Your task to perform on an android device: turn smart compose on in the gmail app Image 0: 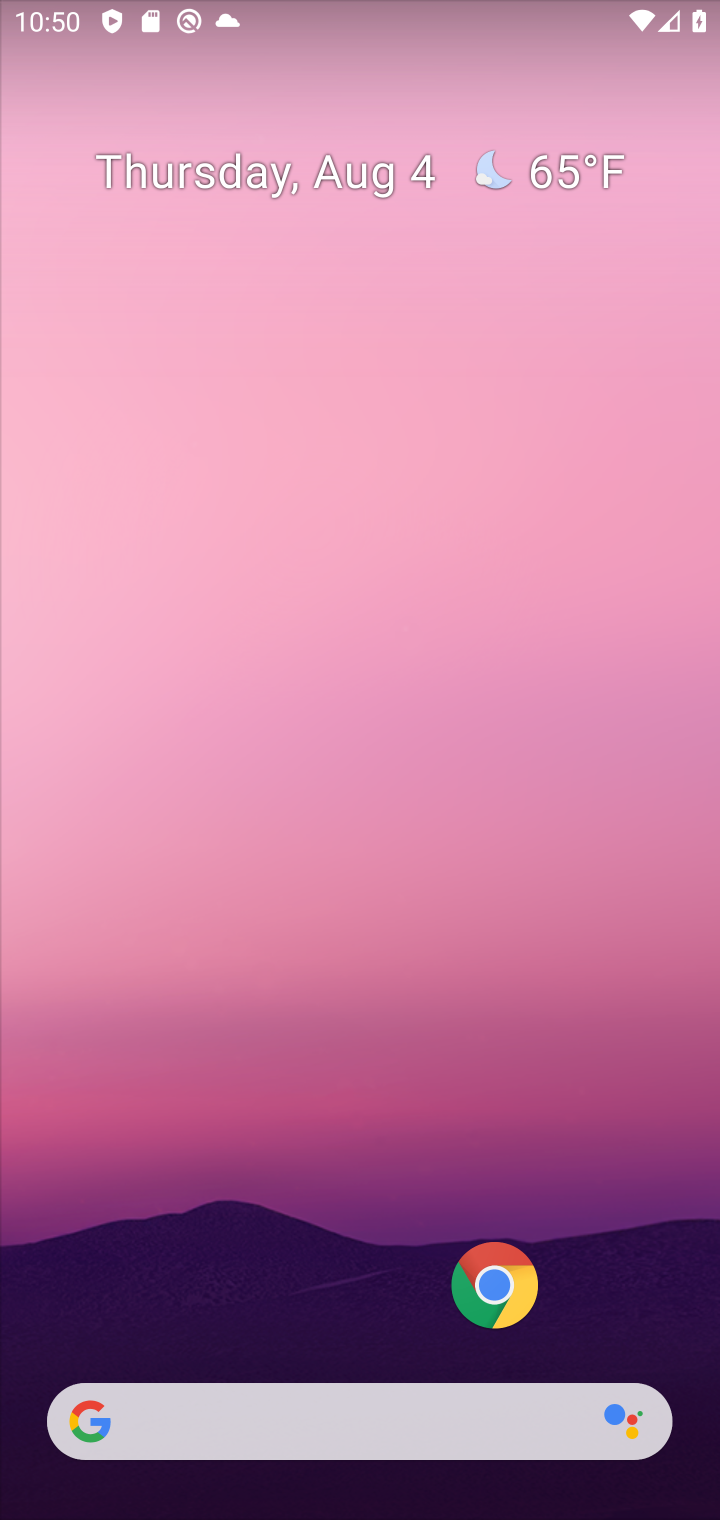
Step 0: drag from (381, 1259) to (540, 104)
Your task to perform on an android device: turn smart compose on in the gmail app Image 1: 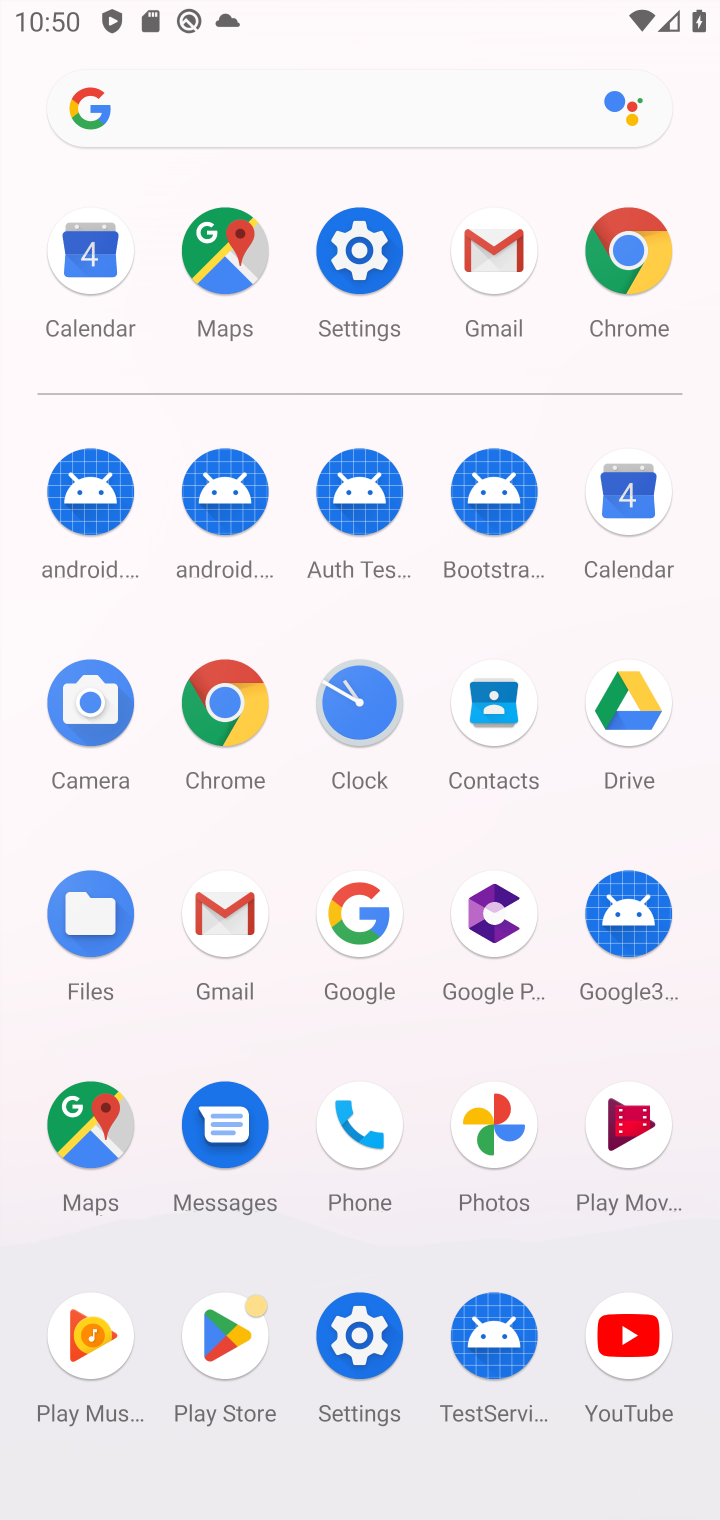
Step 1: click (224, 846)
Your task to perform on an android device: turn smart compose on in the gmail app Image 2: 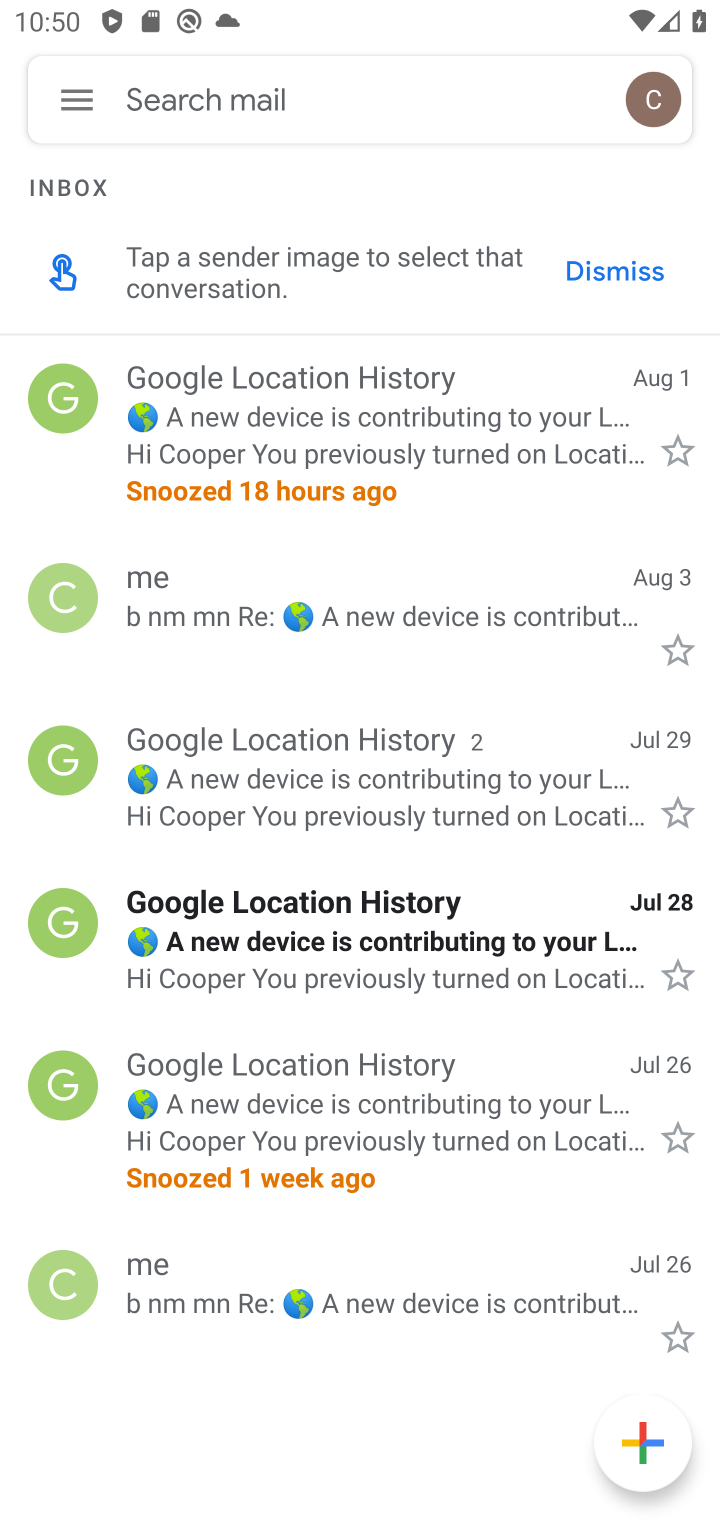
Step 2: click (85, 101)
Your task to perform on an android device: turn smart compose on in the gmail app Image 3: 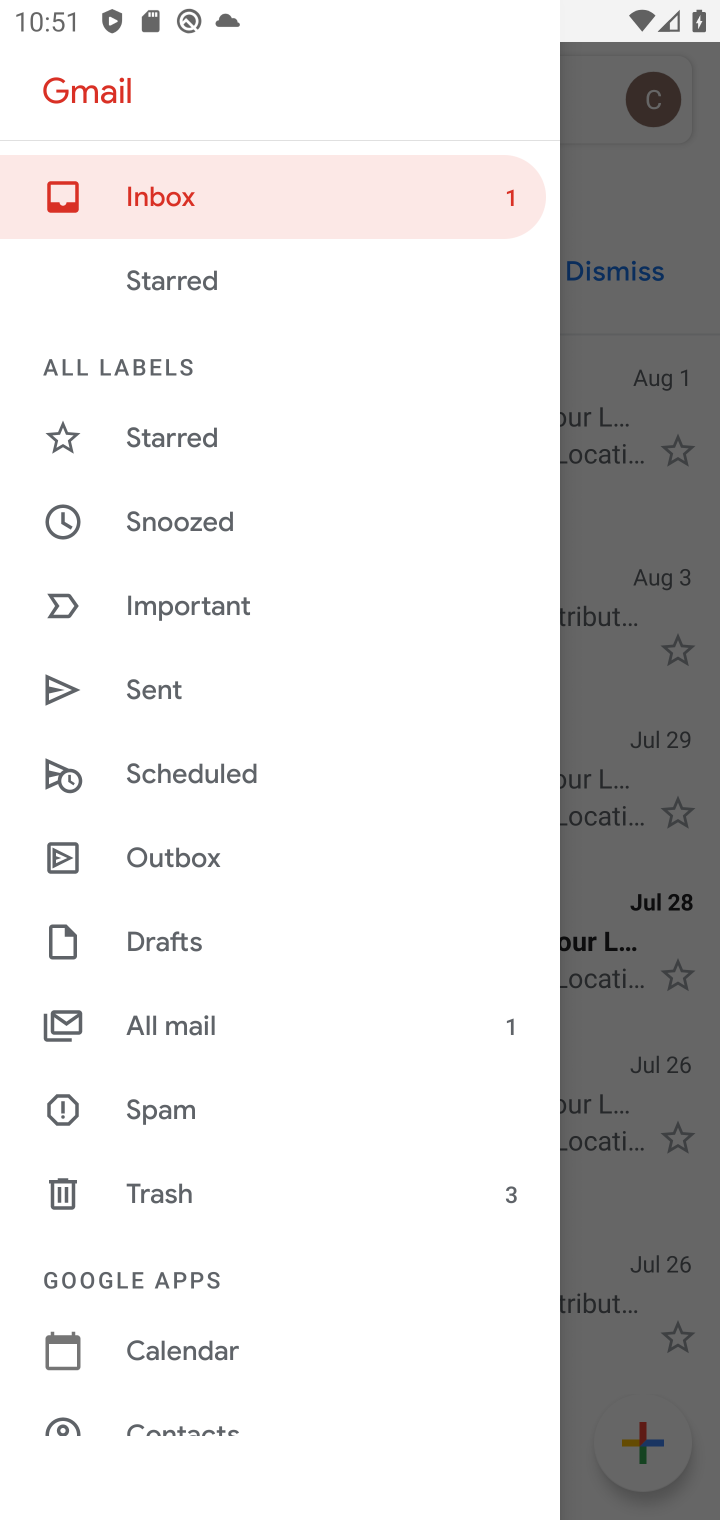
Step 3: drag from (263, 1119) to (304, 125)
Your task to perform on an android device: turn smart compose on in the gmail app Image 4: 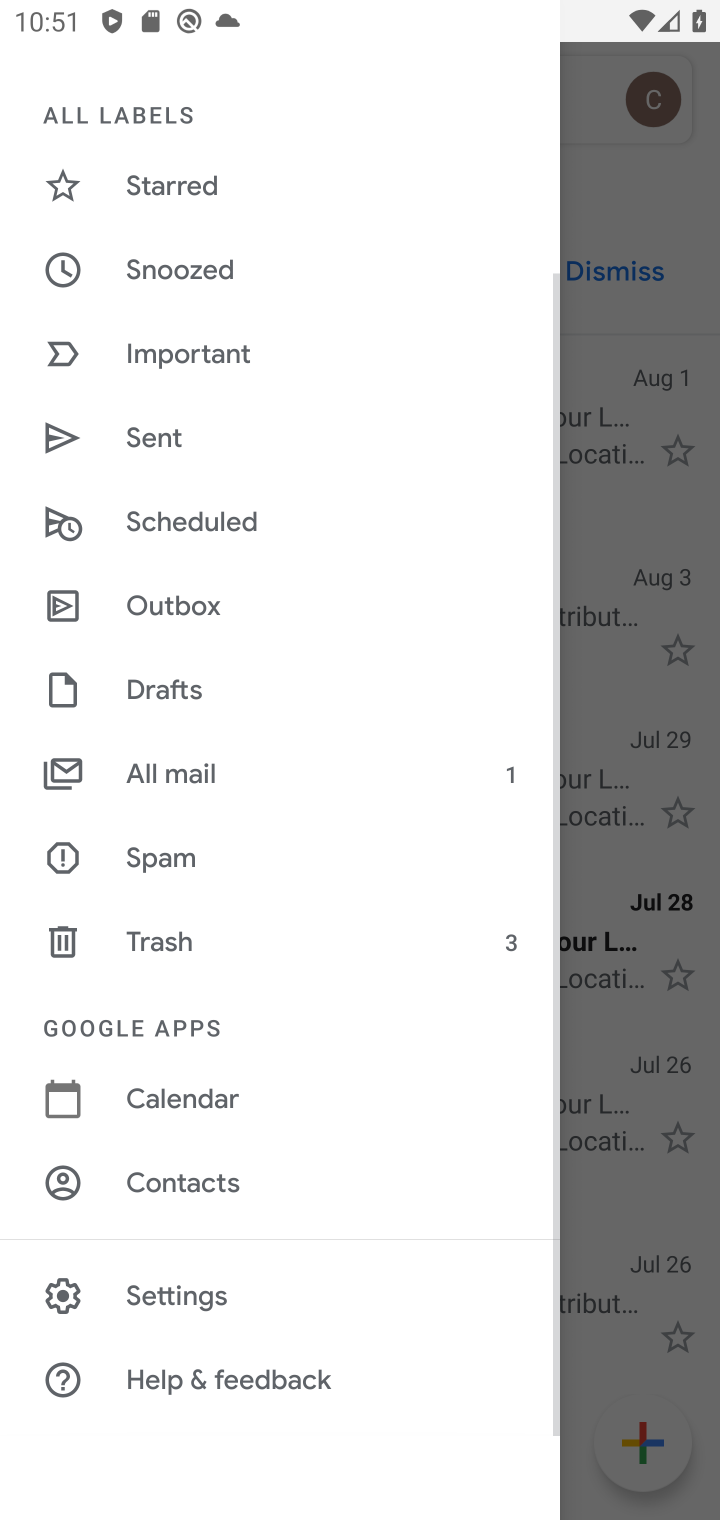
Step 4: click (159, 1289)
Your task to perform on an android device: turn smart compose on in the gmail app Image 5: 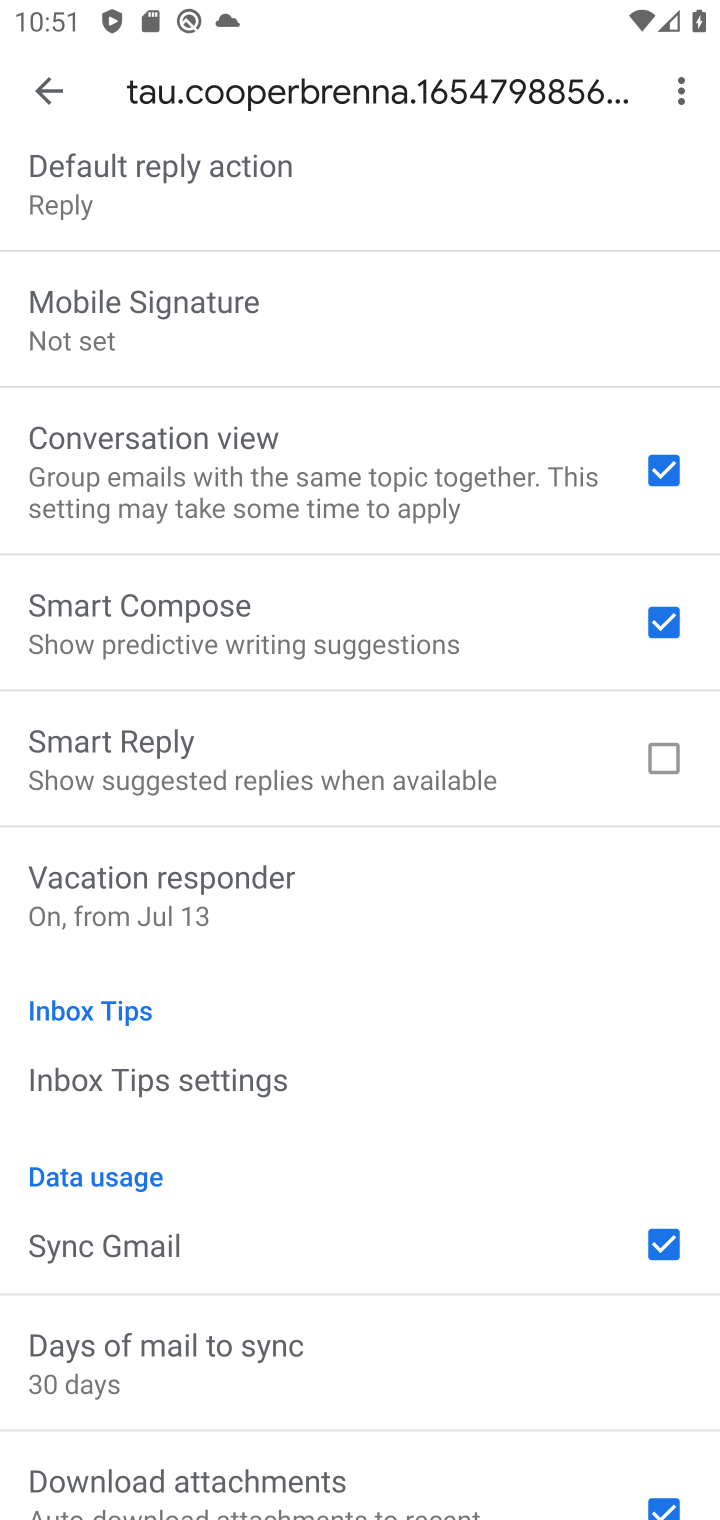
Step 5: drag from (472, 1051) to (407, 259)
Your task to perform on an android device: turn smart compose on in the gmail app Image 6: 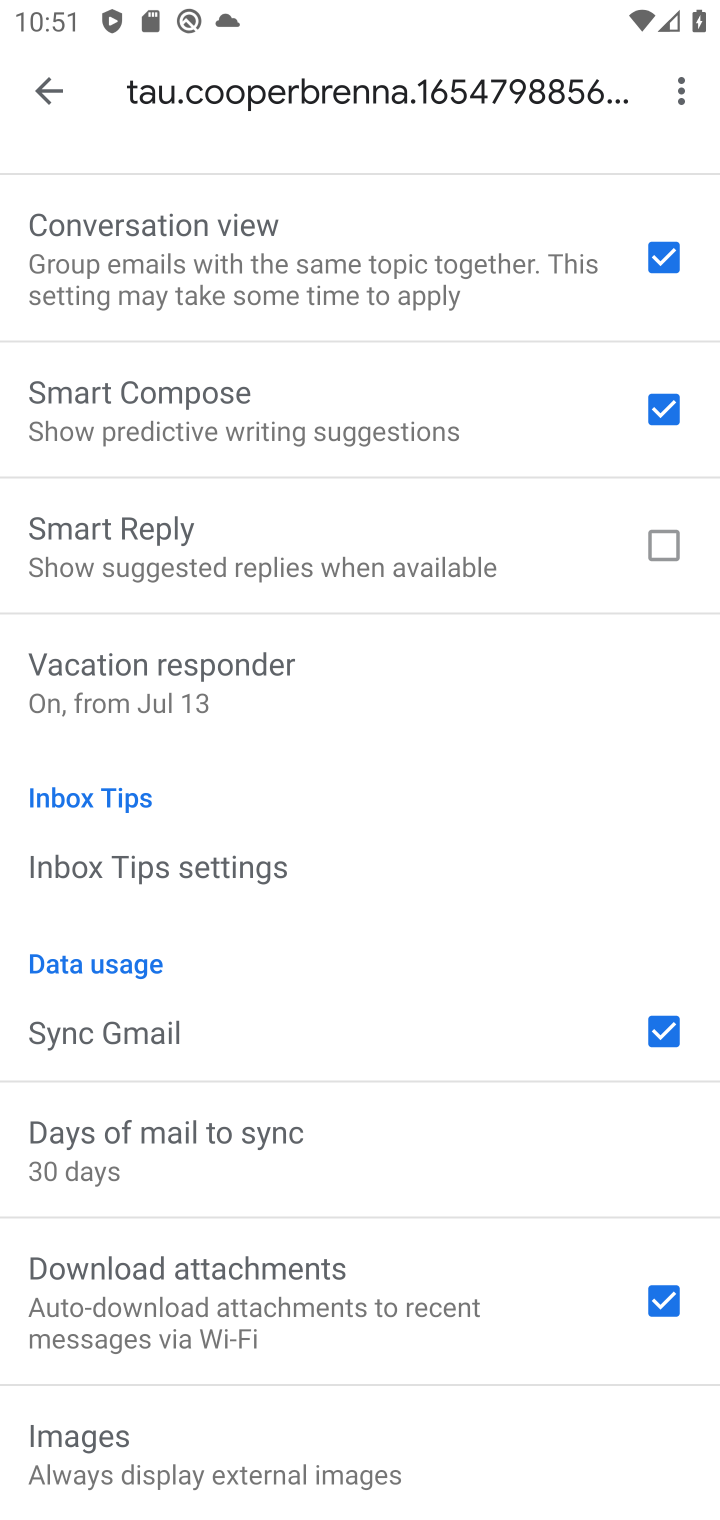
Step 6: click (530, 410)
Your task to perform on an android device: turn smart compose on in the gmail app Image 7: 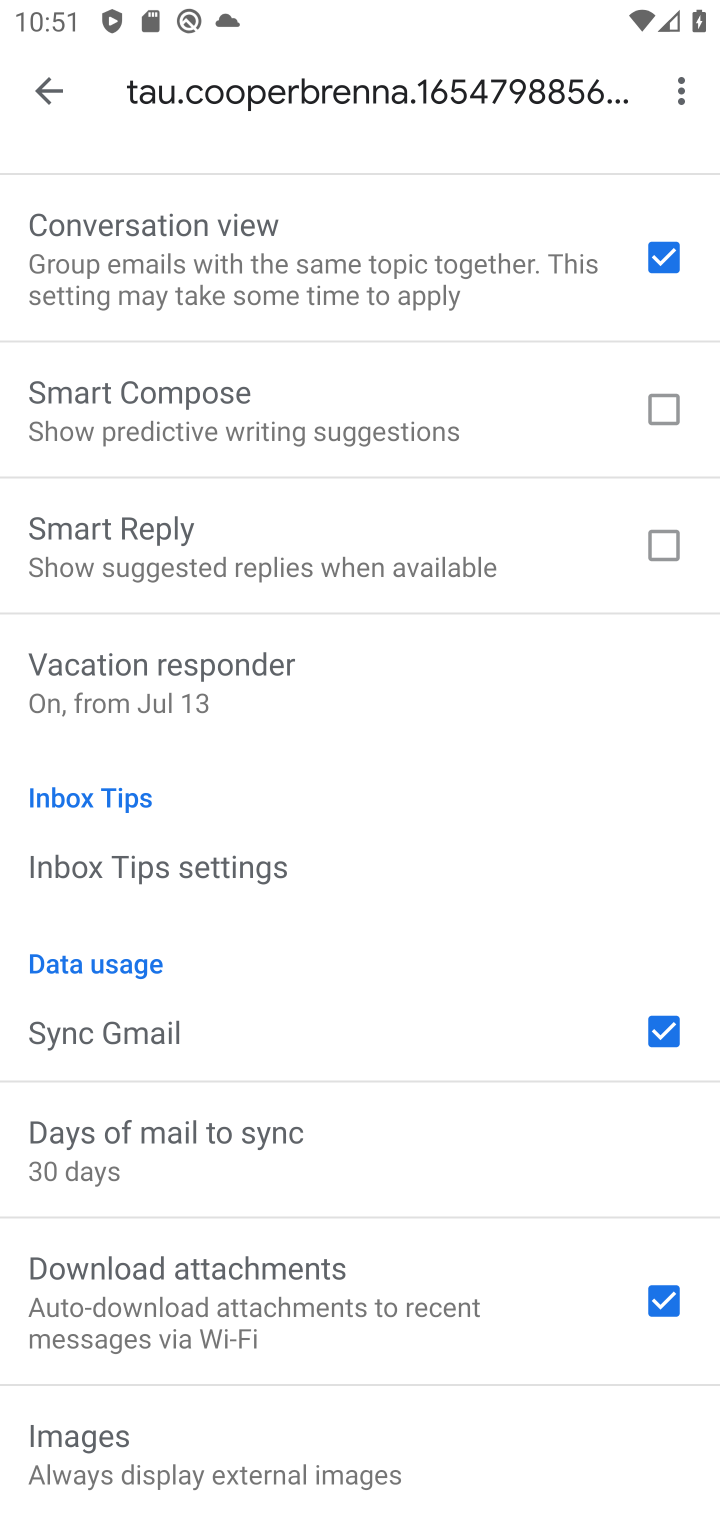
Step 7: task complete